Your task to perform on an android device: Add "razer nari" to the cart on costco Image 0: 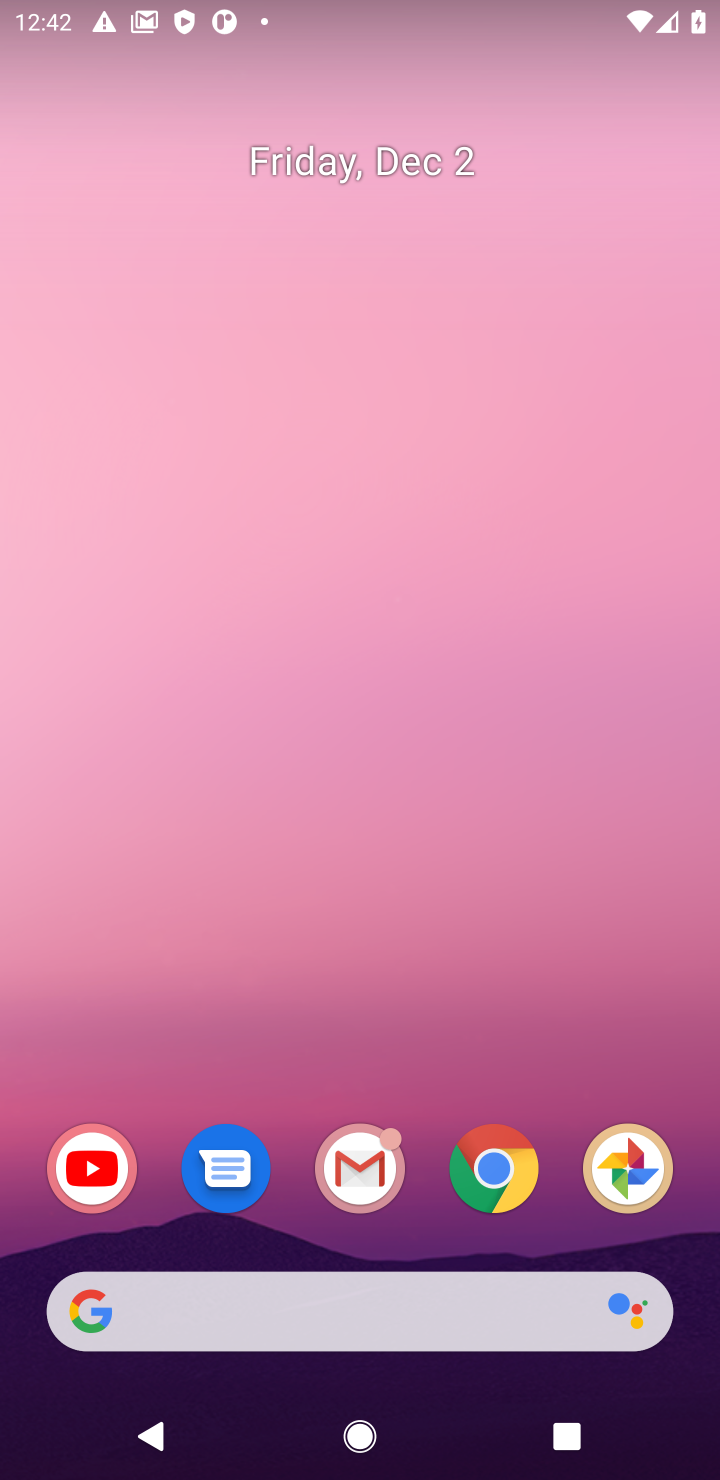
Step 0: click (485, 1160)
Your task to perform on an android device: Add "razer nari" to the cart on costco Image 1: 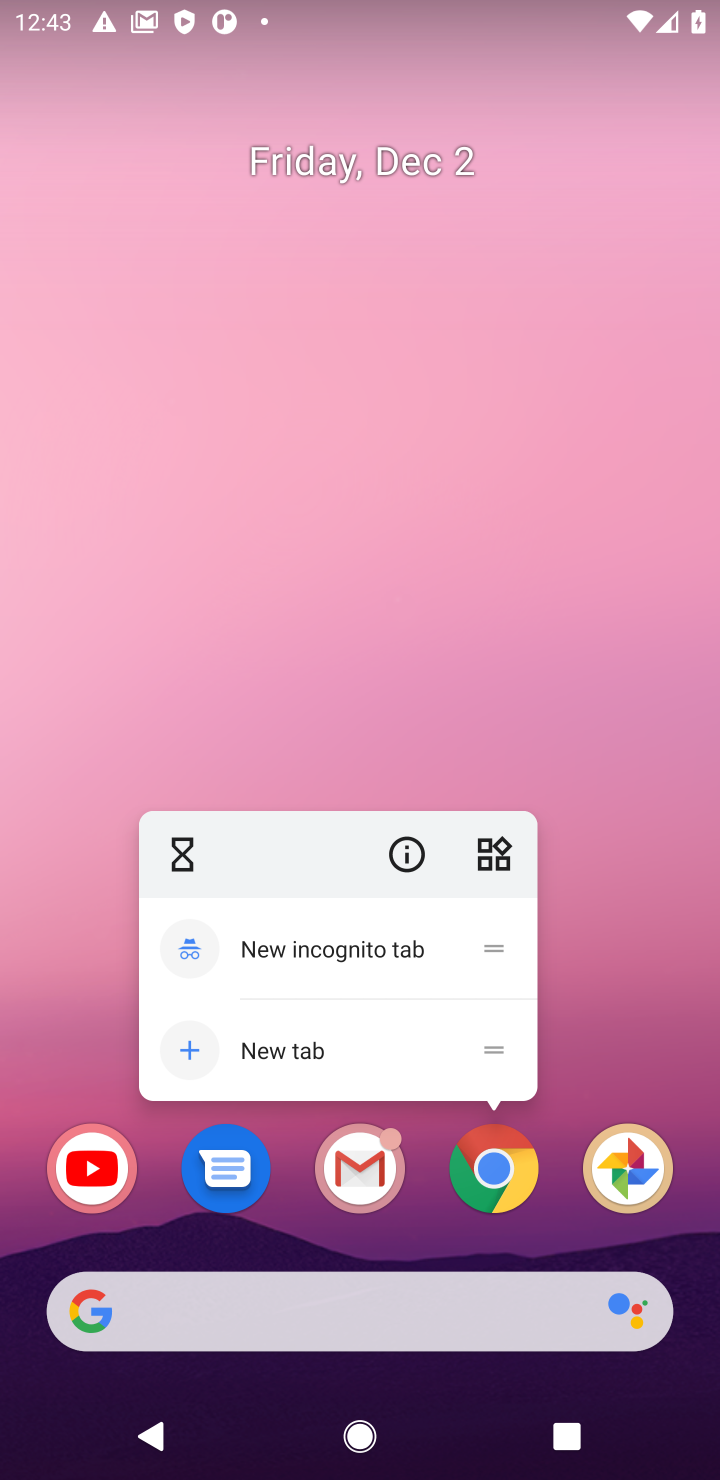
Step 1: click (490, 1170)
Your task to perform on an android device: Add "razer nari" to the cart on costco Image 2: 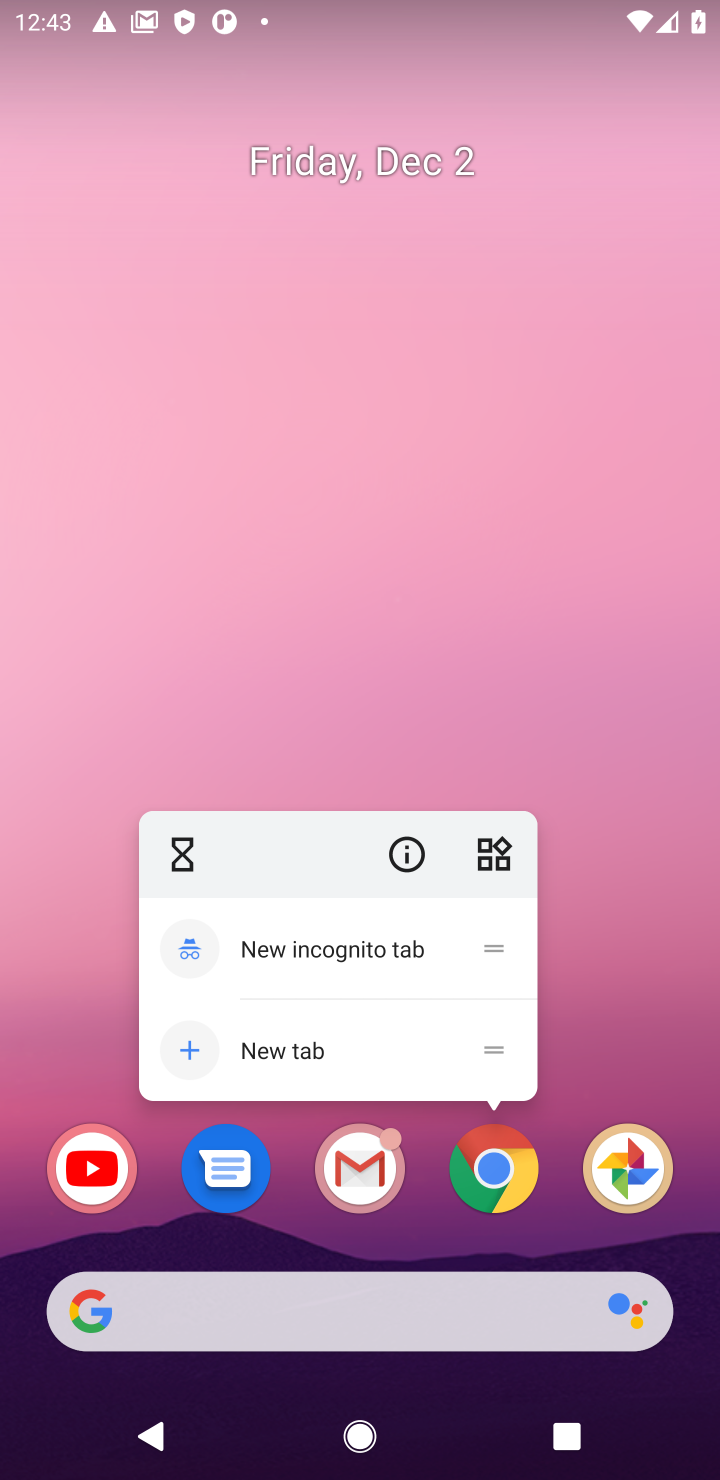
Step 2: click (490, 1170)
Your task to perform on an android device: Add "razer nari" to the cart on costco Image 3: 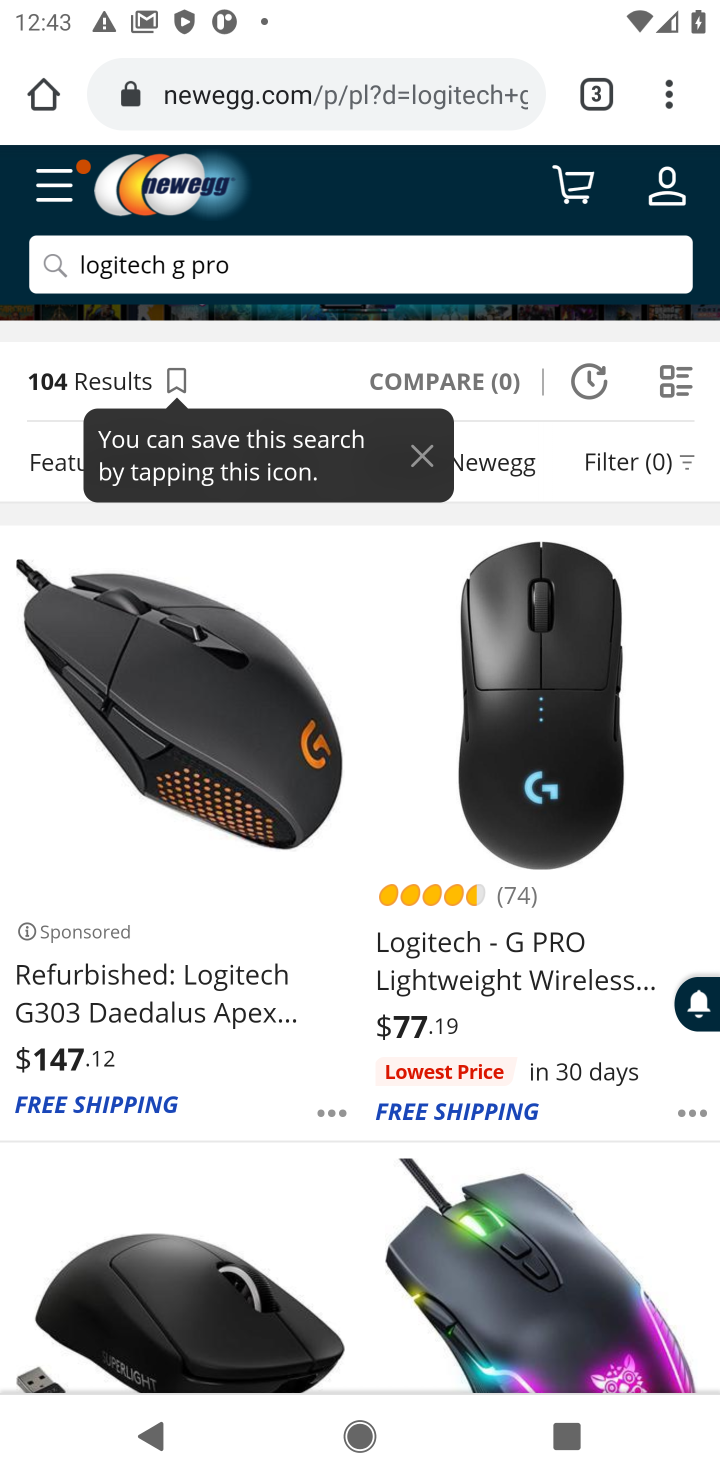
Step 3: click (250, 93)
Your task to perform on an android device: Add "razer nari" to the cart on costco Image 4: 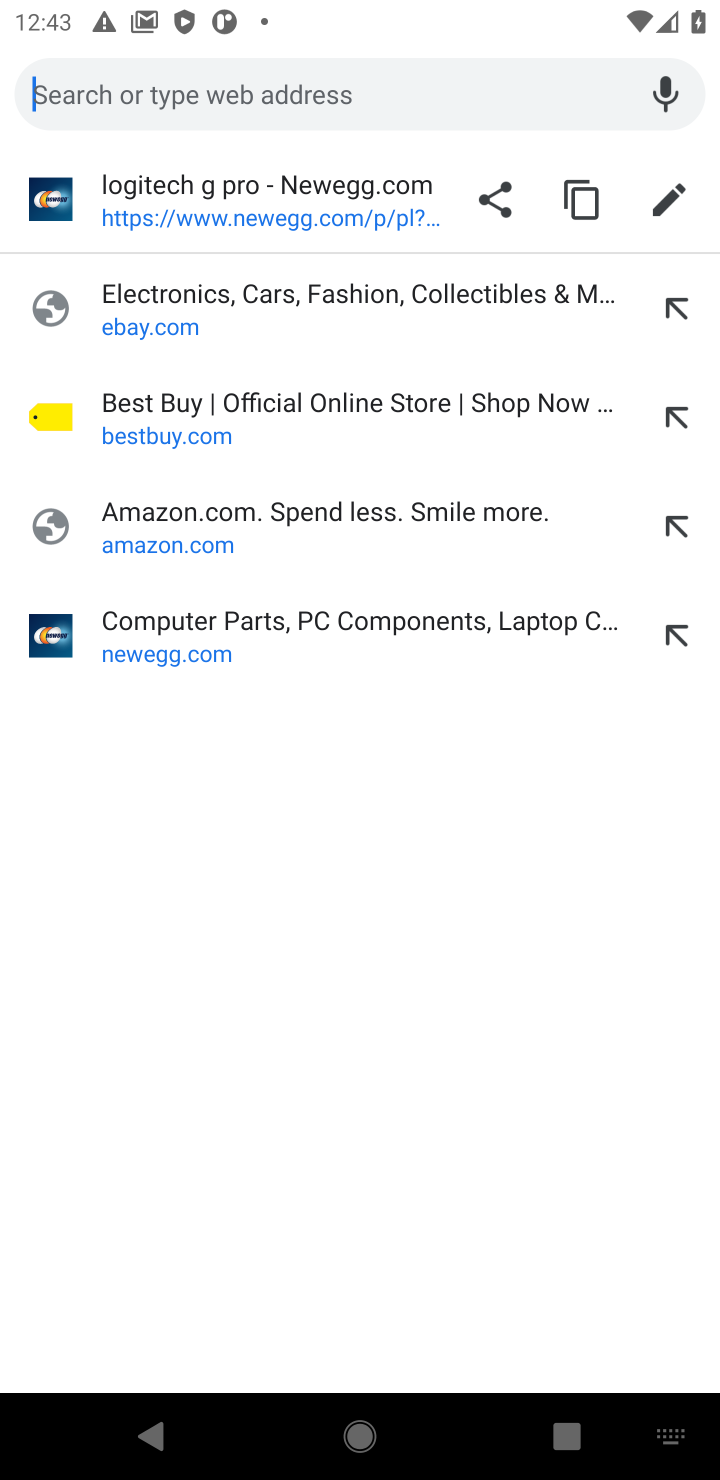
Step 4: type "costco.com"
Your task to perform on an android device: Add "razer nari" to the cart on costco Image 5: 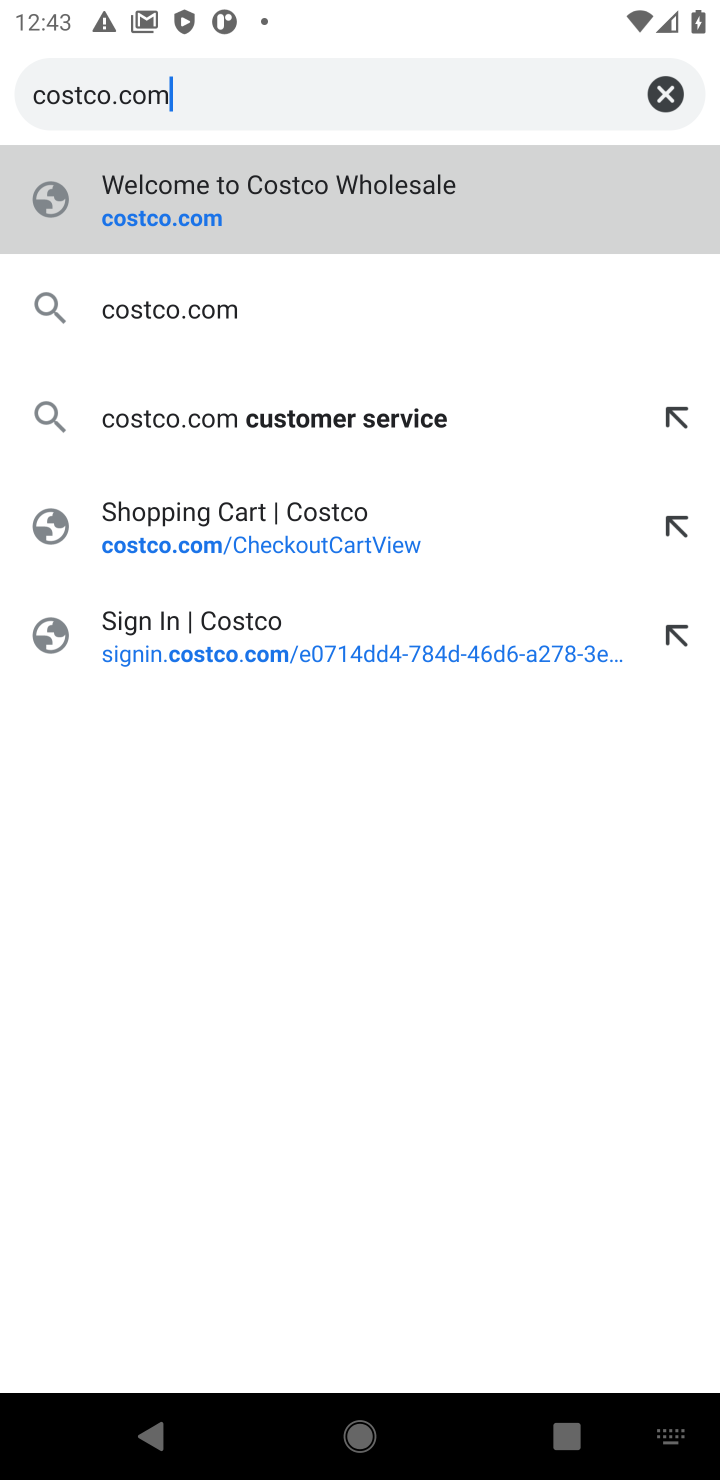
Step 5: click (151, 218)
Your task to perform on an android device: Add "razer nari" to the cart on costco Image 6: 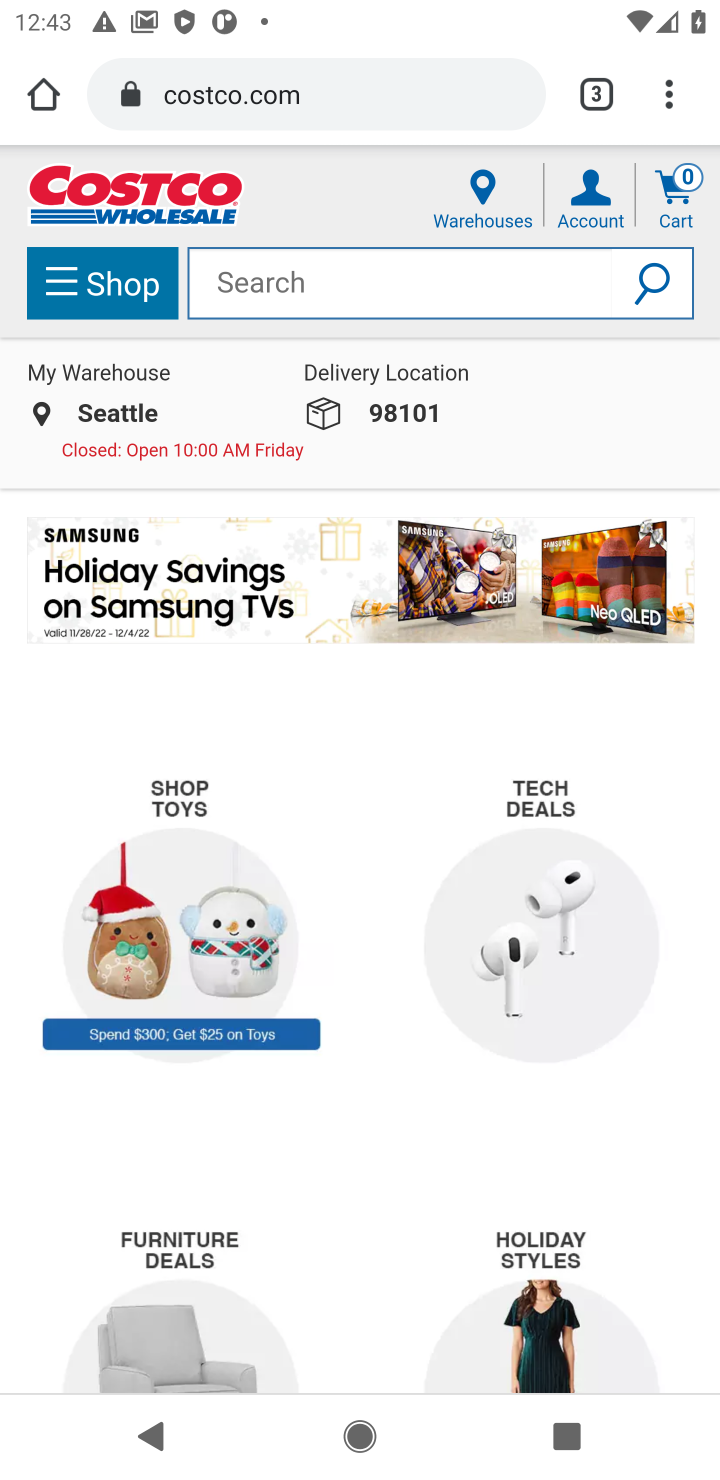
Step 6: click (273, 287)
Your task to perform on an android device: Add "razer nari" to the cart on costco Image 7: 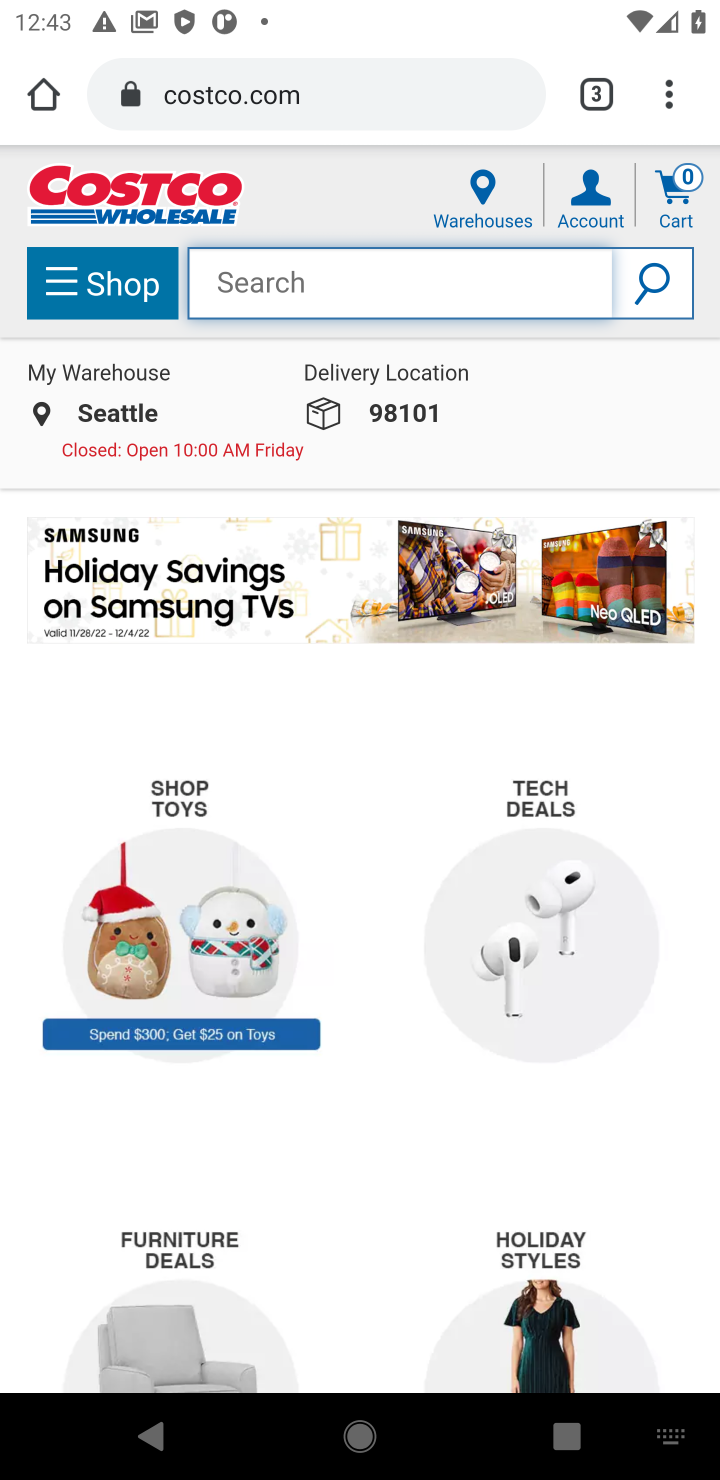
Step 7: type "razer nari"
Your task to perform on an android device: Add "razer nari" to the cart on costco Image 8: 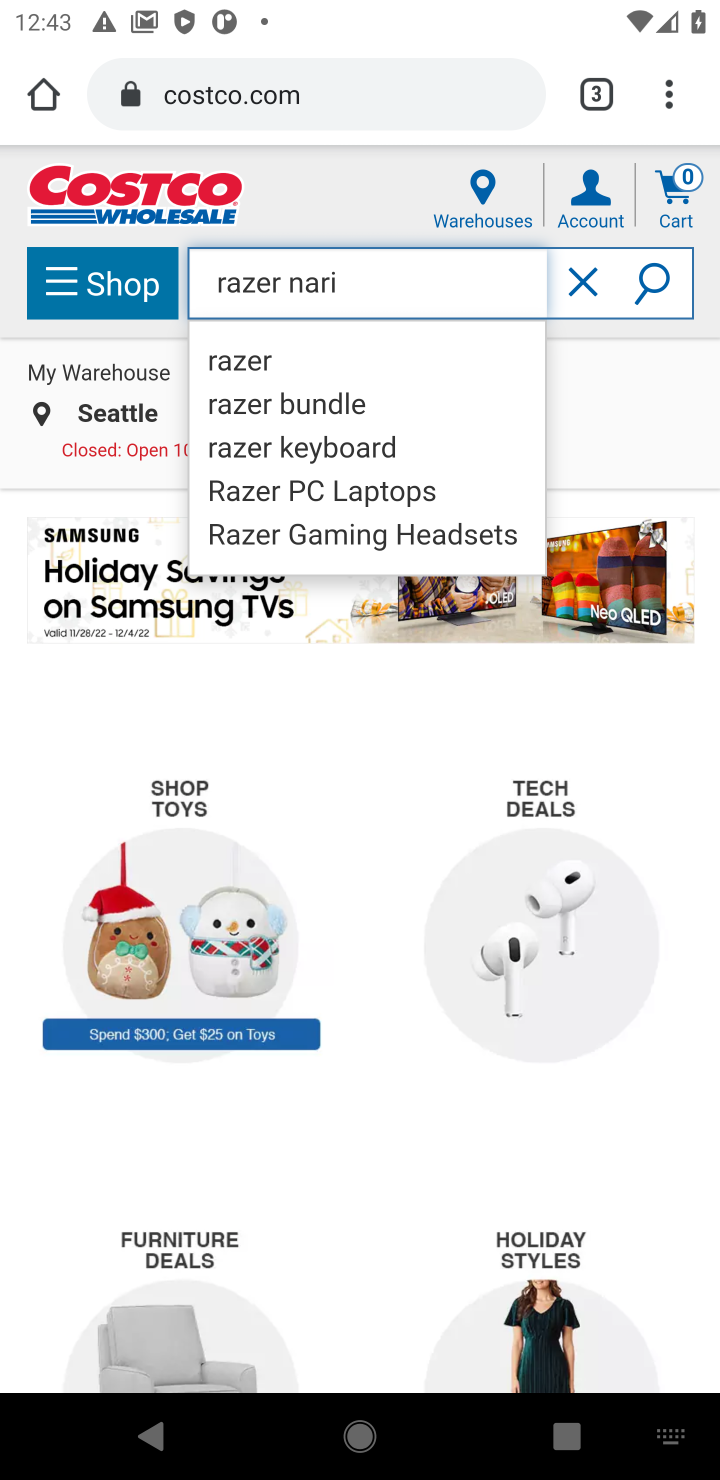
Step 8: click (653, 286)
Your task to perform on an android device: Add "razer nari" to the cart on costco Image 9: 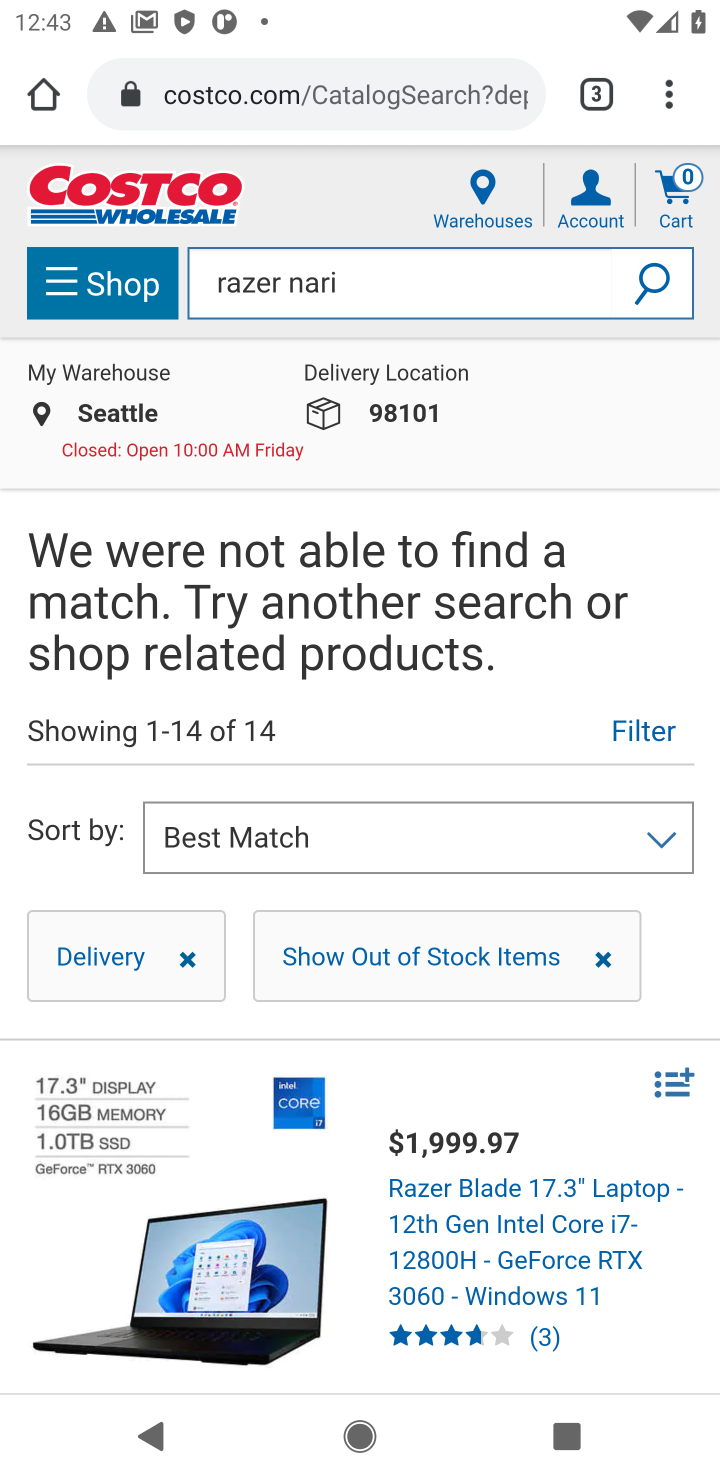
Step 9: task complete